Your task to perform on an android device: Open wifi settings Image 0: 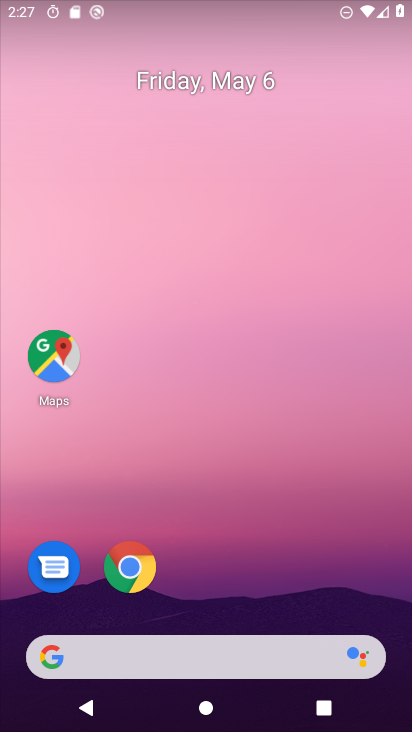
Step 0: drag from (255, 671) to (314, 214)
Your task to perform on an android device: Open wifi settings Image 1: 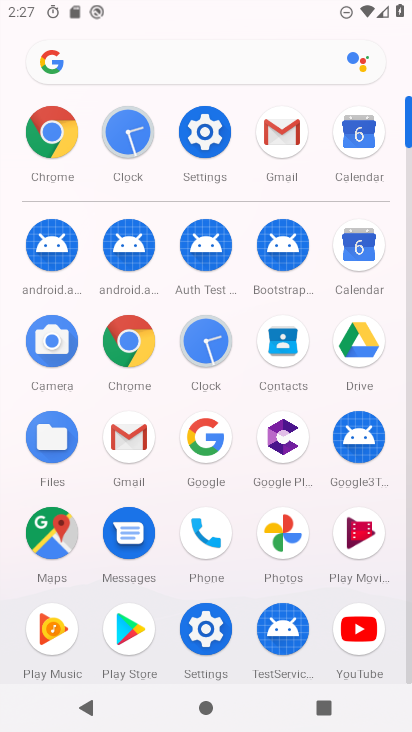
Step 1: click (202, 147)
Your task to perform on an android device: Open wifi settings Image 2: 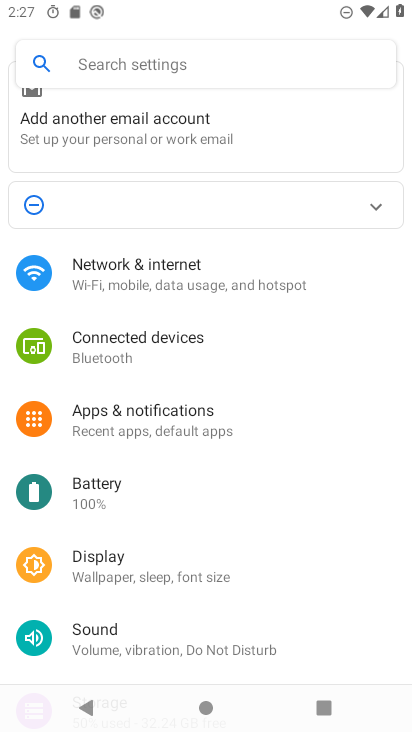
Step 2: click (160, 290)
Your task to perform on an android device: Open wifi settings Image 3: 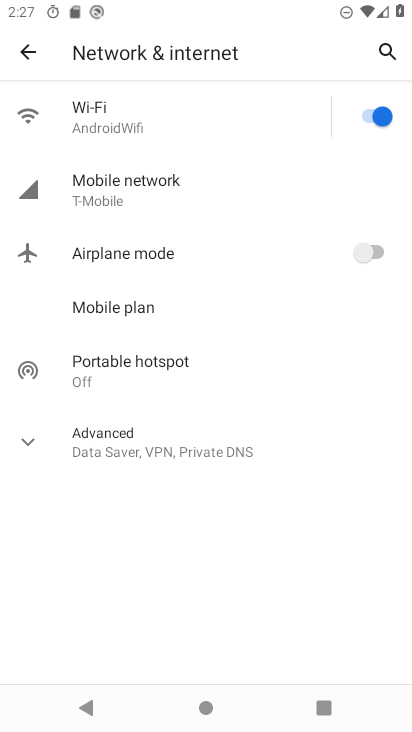
Step 3: click (196, 115)
Your task to perform on an android device: Open wifi settings Image 4: 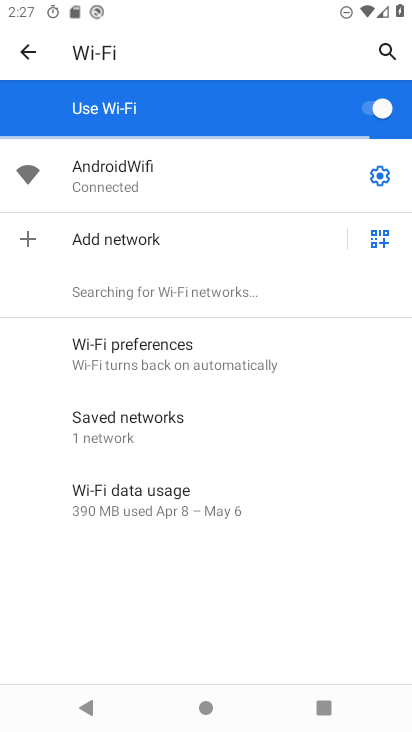
Step 4: task complete